Your task to perform on an android device: Open notification settings Image 0: 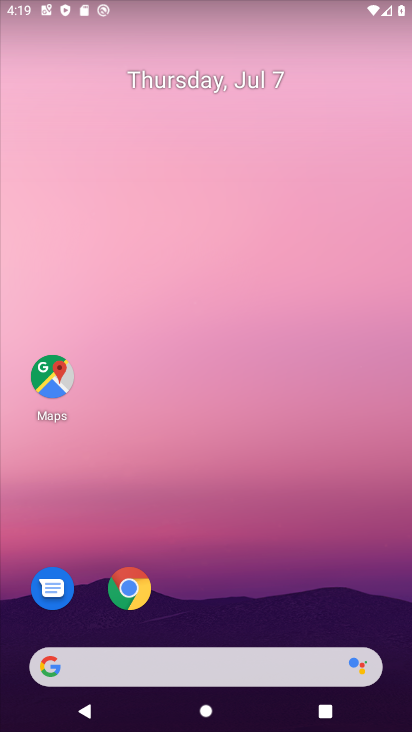
Step 0: drag from (302, 651) to (366, 108)
Your task to perform on an android device: Open notification settings Image 1: 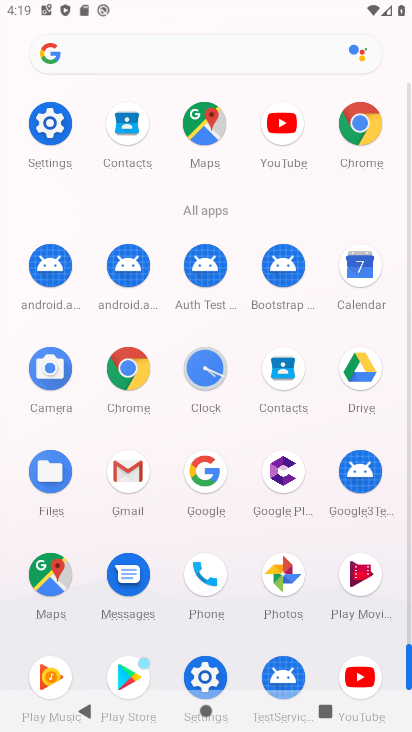
Step 1: click (49, 117)
Your task to perform on an android device: Open notification settings Image 2: 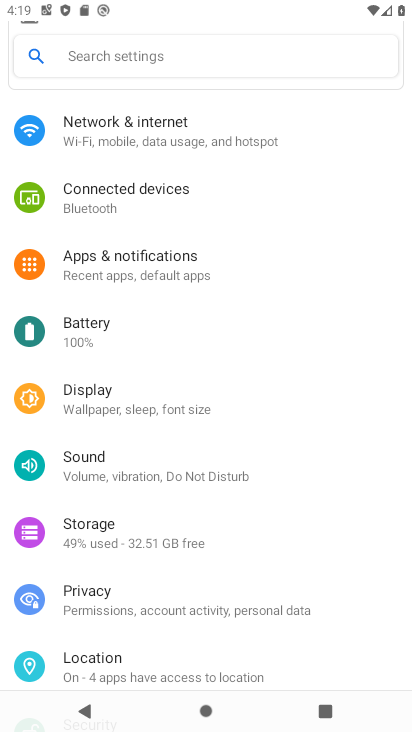
Step 2: click (203, 270)
Your task to perform on an android device: Open notification settings Image 3: 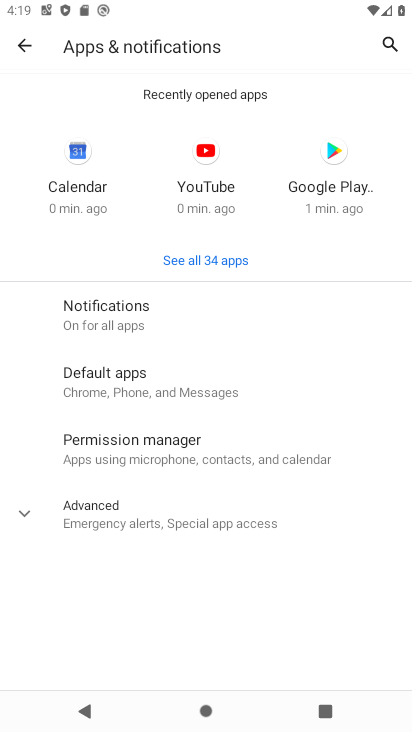
Step 3: click (165, 308)
Your task to perform on an android device: Open notification settings Image 4: 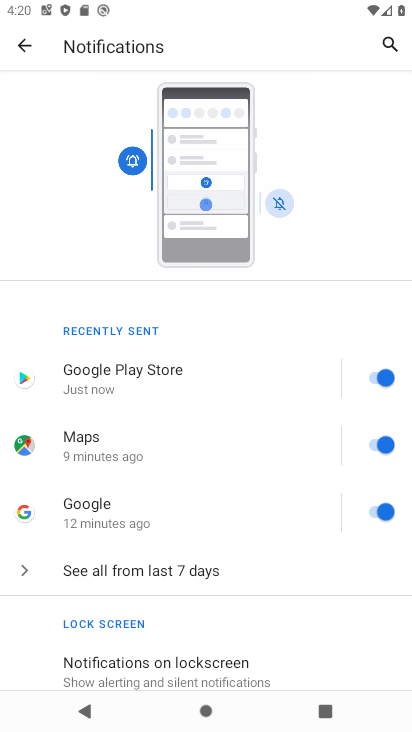
Step 4: task complete